Your task to perform on an android device: Go to wifi settings Image 0: 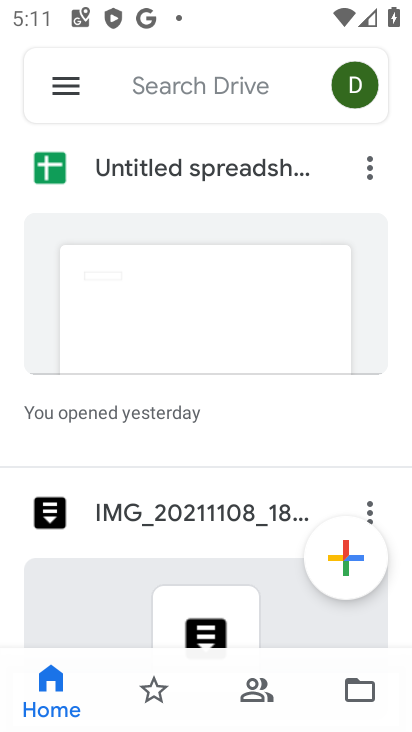
Step 0: press back button
Your task to perform on an android device: Go to wifi settings Image 1: 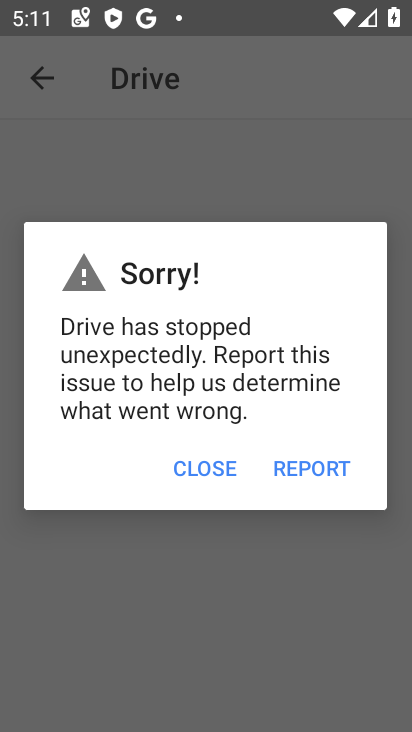
Step 1: press home button
Your task to perform on an android device: Go to wifi settings Image 2: 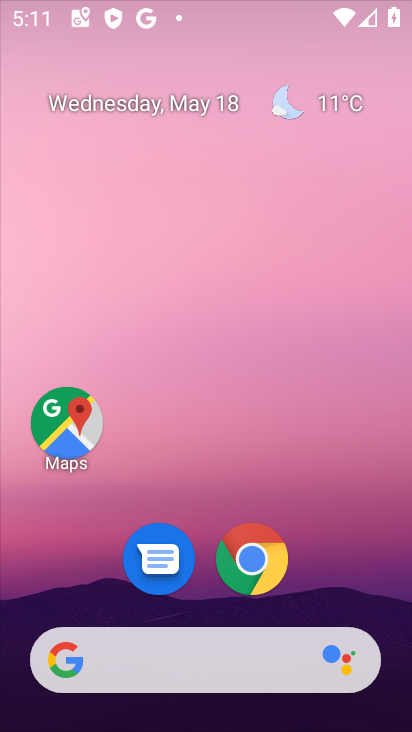
Step 2: drag from (54, 19) to (123, 561)
Your task to perform on an android device: Go to wifi settings Image 3: 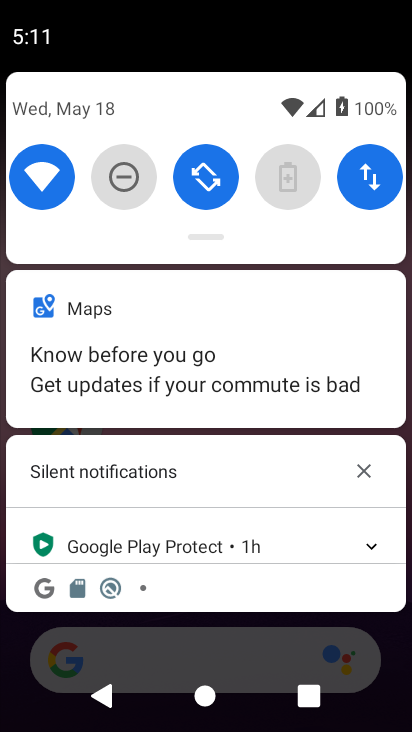
Step 3: click (48, 172)
Your task to perform on an android device: Go to wifi settings Image 4: 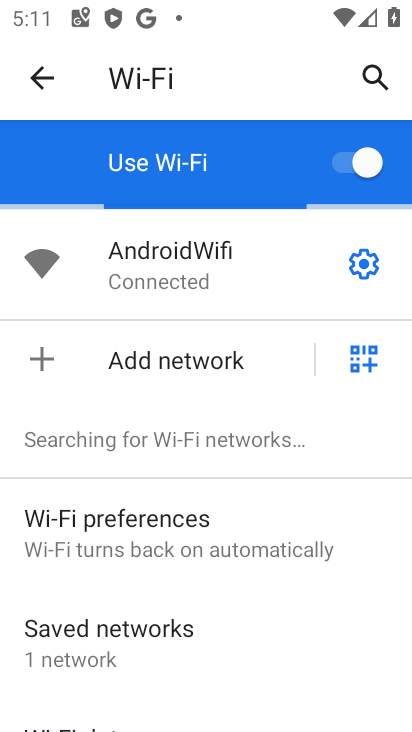
Step 4: task complete